Your task to perform on an android device: toggle pop-ups in chrome Image 0: 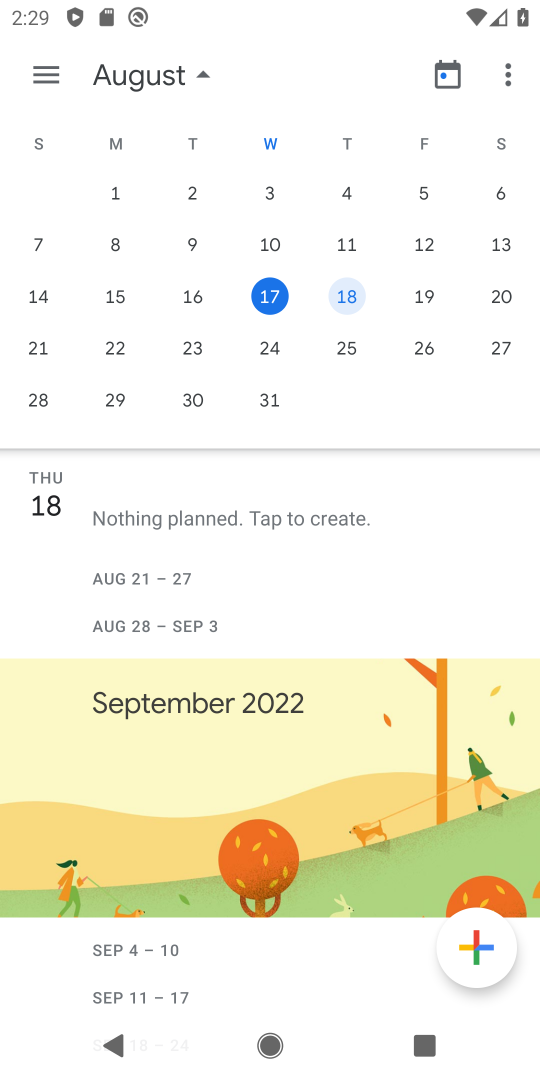
Step 0: press home button
Your task to perform on an android device: toggle pop-ups in chrome Image 1: 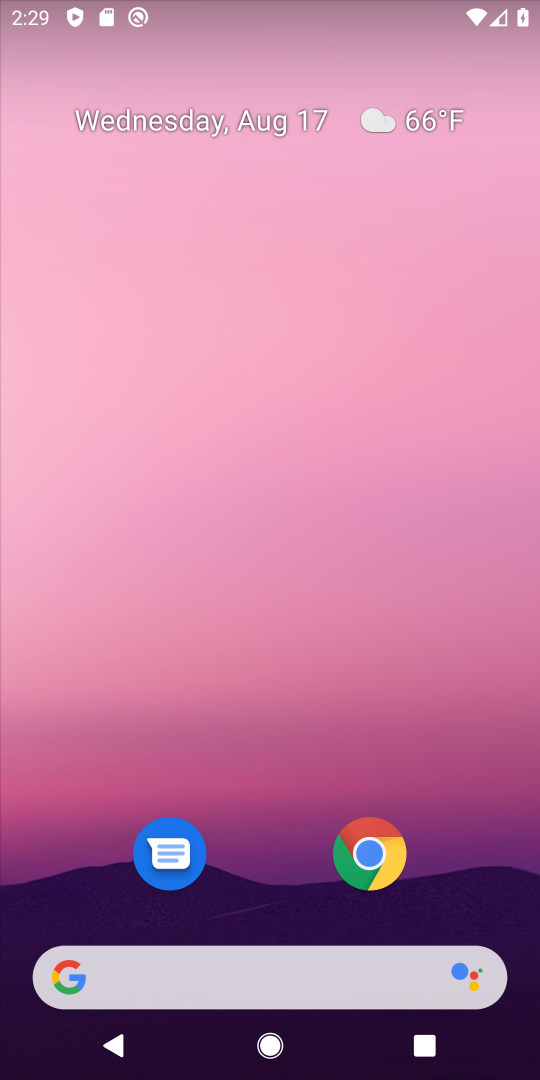
Step 1: drag from (315, 906) to (327, 75)
Your task to perform on an android device: toggle pop-ups in chrome Image 2: 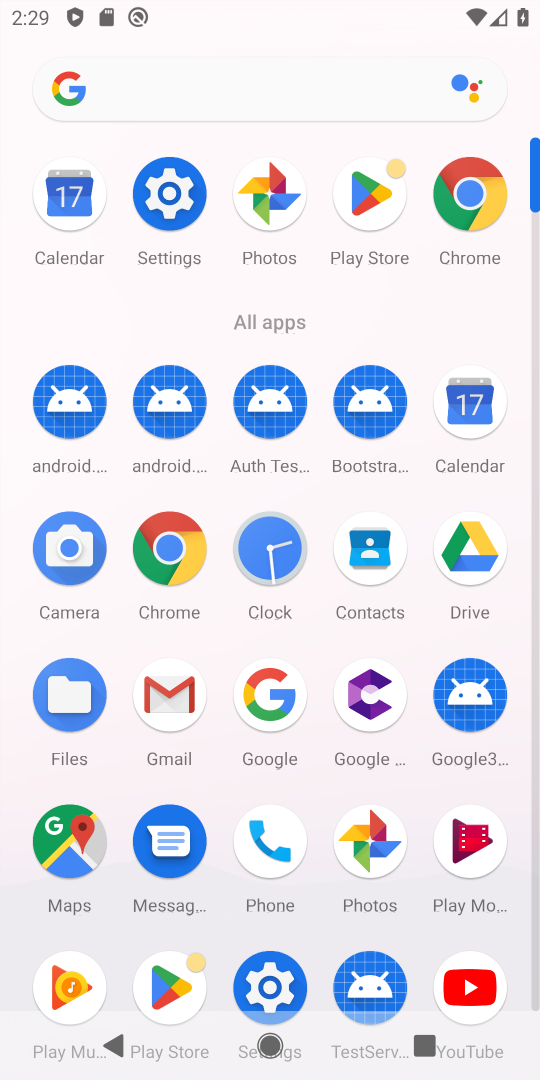
Step 2: click (167, 545)
Your task to perform on an android device: toggle pop-ups in chrome Image 3: 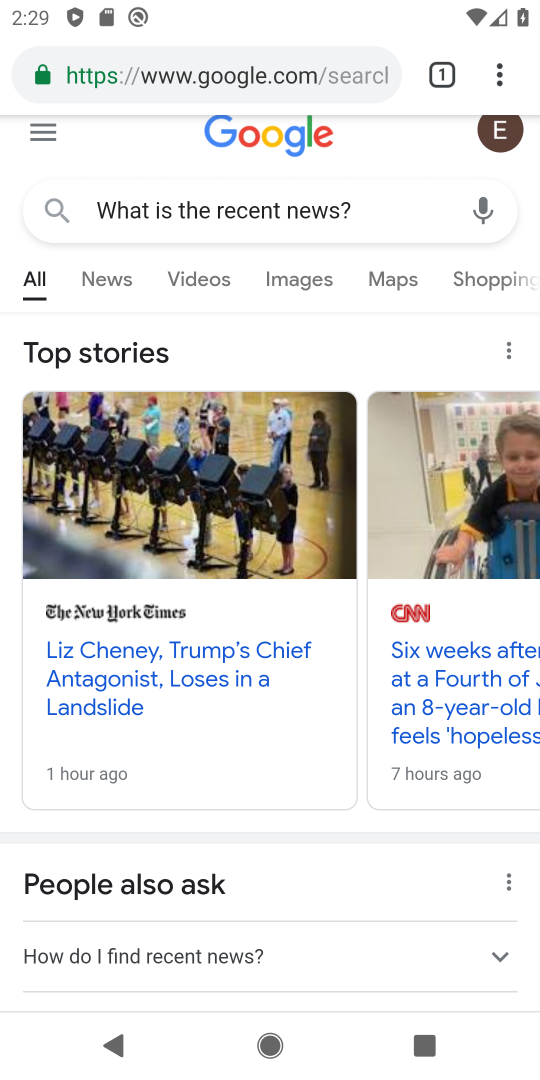
Step 3: click (500, 73)
Your task to perform on an android device: toggle pop-ups in chrome Image 4: 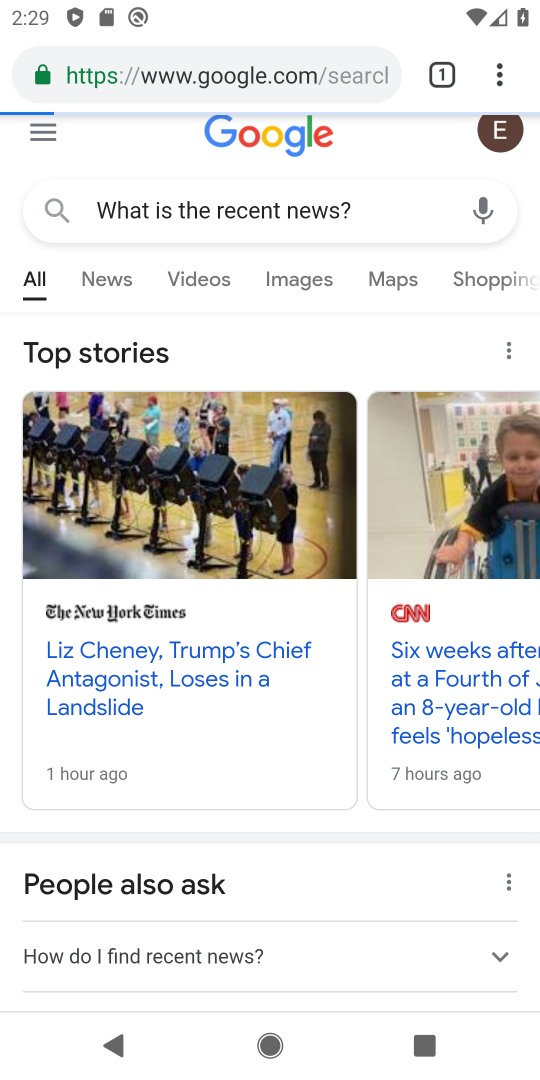
Step 4: drag from (500, 73) to (273, 824)
Your task to perform on an android device: toggle pop-ups in chrome Image 5: 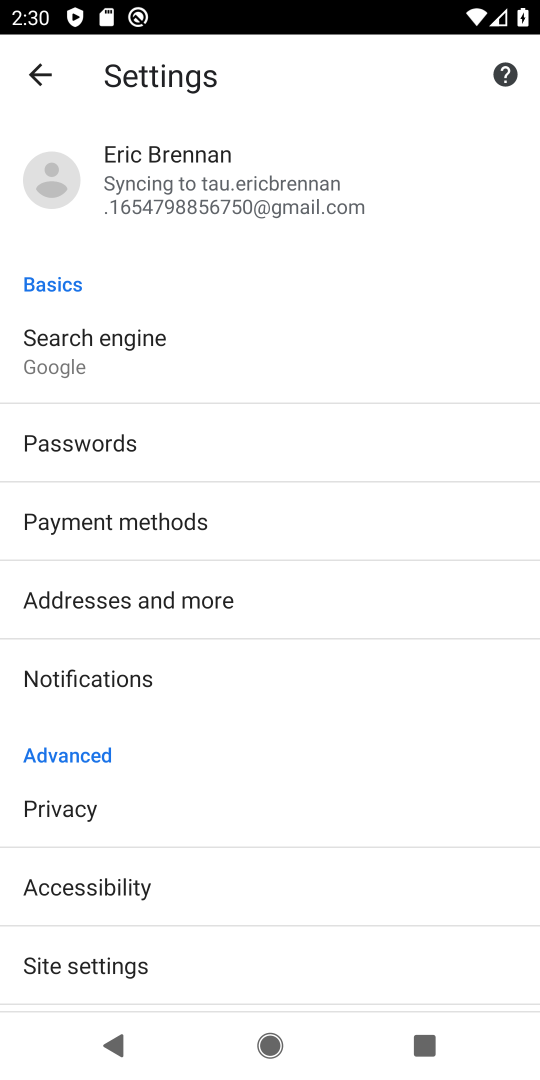
Step 5: drag from (352, 849) to (393, 337)
Your task to perform on an android device: toggle pop-ups in chrome Image 6: 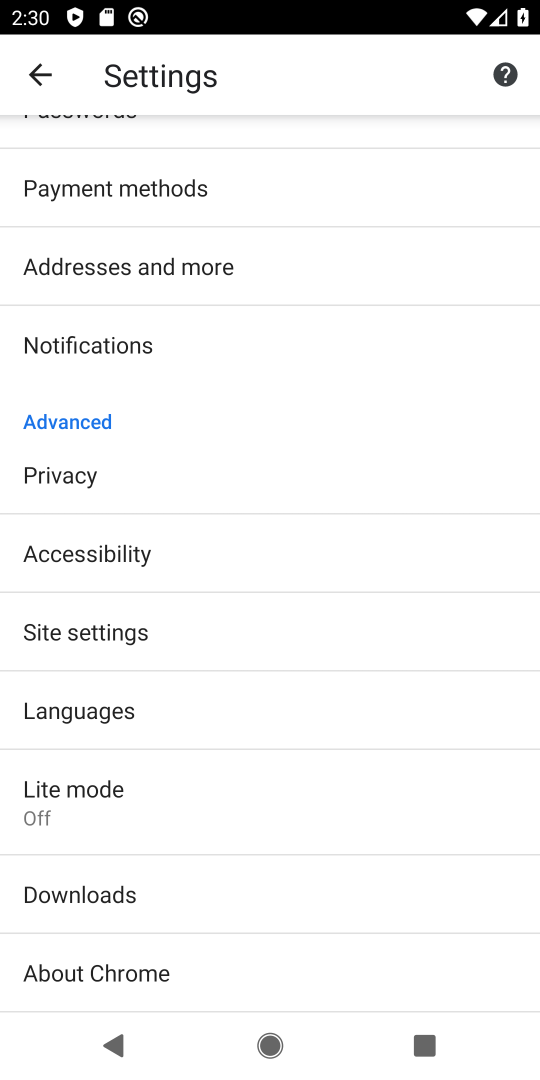
Step 6: click (145, 623)
Your task to perform on an android device: toggle pop-ups in chrome Image 7: 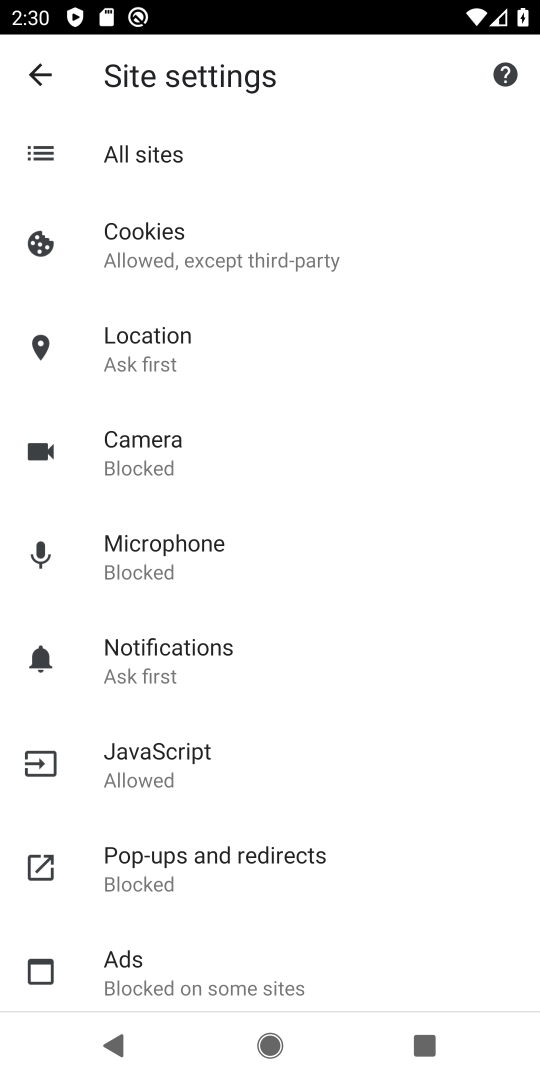
Step 7: click (298, 848)
Your task to perform on an android device: toggle pop-ups in chrome Image 8: 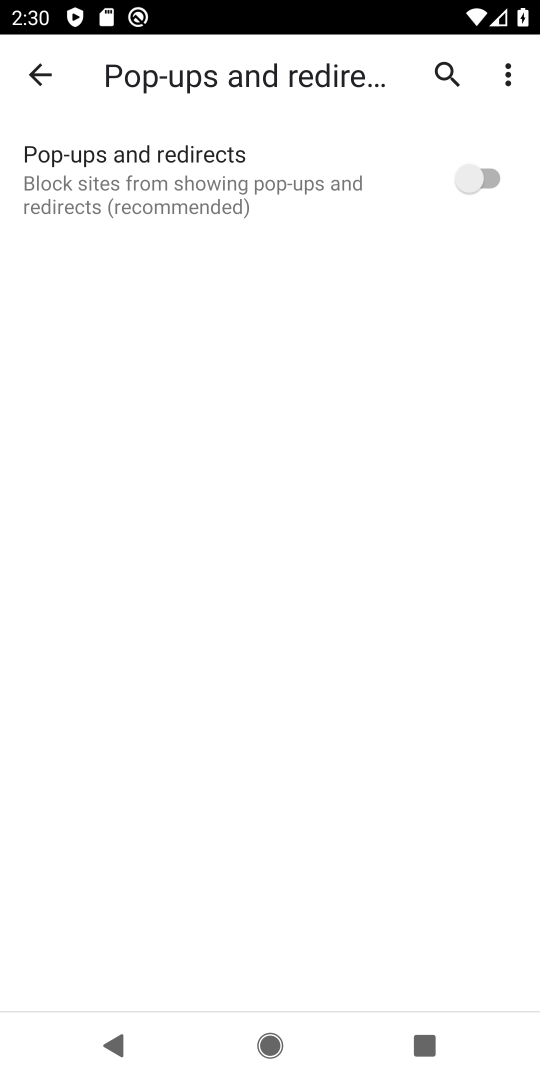
Step 8: click (330, 177)
Your task to perform on an android device: toggle pop-ups in chrome Image 9: 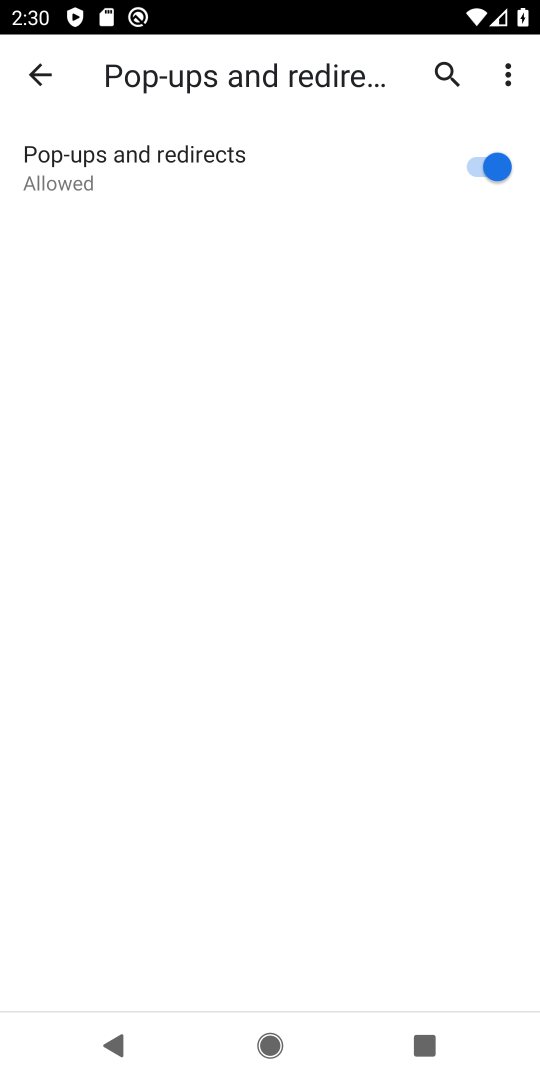
Step 9: task complete